Your task to perform on an android device: Turn on the flashlight Image 0: 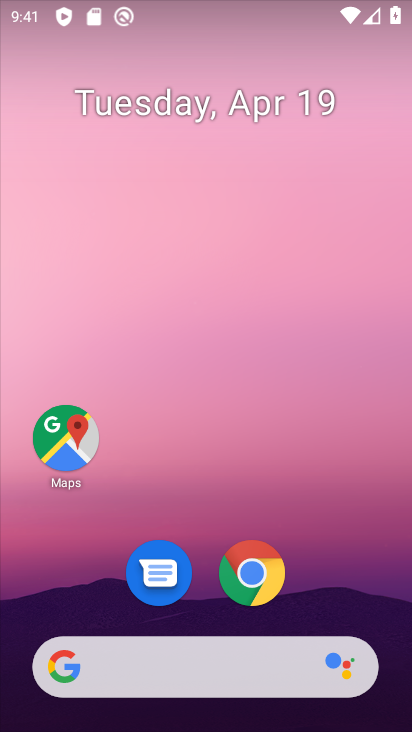
Step 0: drag from (207, 322) to (199, 441)
Your task to perform on an android device: Turn on the flashlight Image 1: 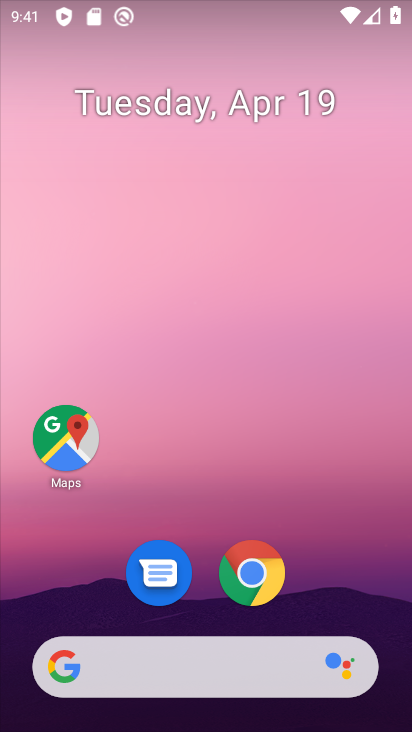
Step 1: drag from (244, 2) to (242, 469)
Your task to perform on an android device: Turn on the flashlight Image 2: 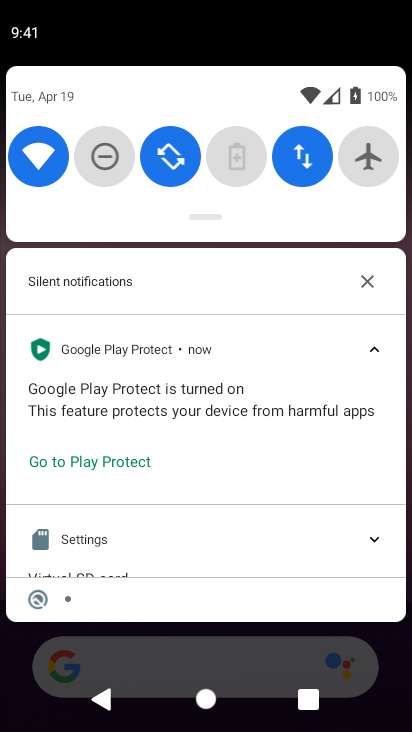
Step 2: drag from (204, 168) to (196, 440)
Your task to perform on an android device: Turn on the flashlight Image 3: 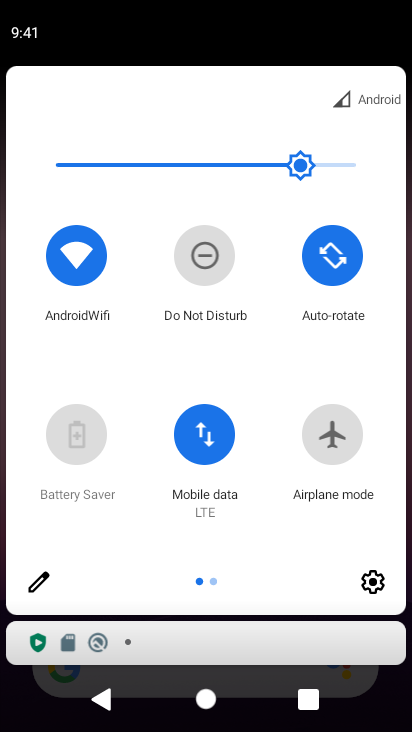
Step 3: click (41, 584)
Your task to perform on an android device: Turn on the flashlight Image 4: 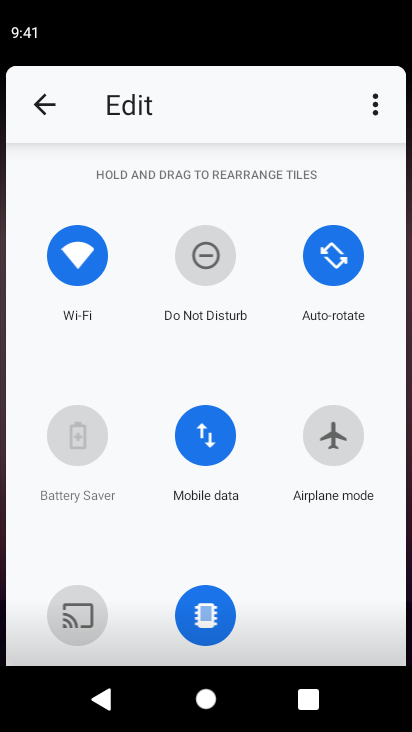
Step 4: task complete